Your task to perform on an android device: Go to display settings Image 0: 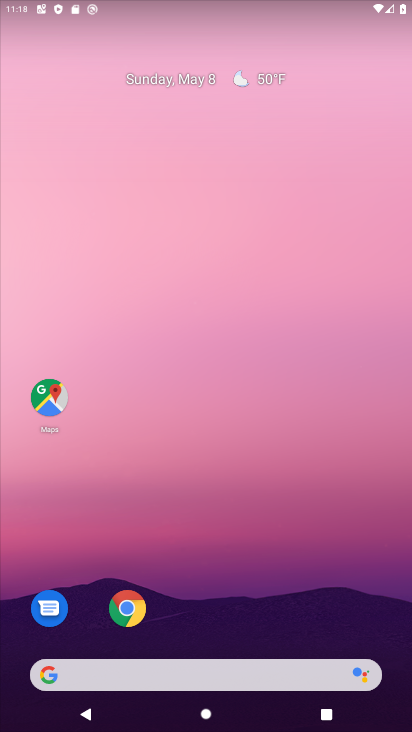
Step 0: drag from (278, 555) to (324, 0)
Your task to perform on an android device: Go to display settings Image 1: 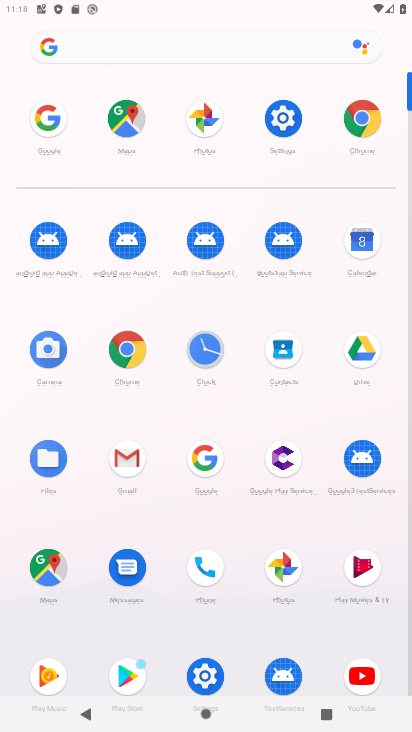
Step 1: click (289, 117)
Your task to perform on an android device: Go to display settings Image 2: 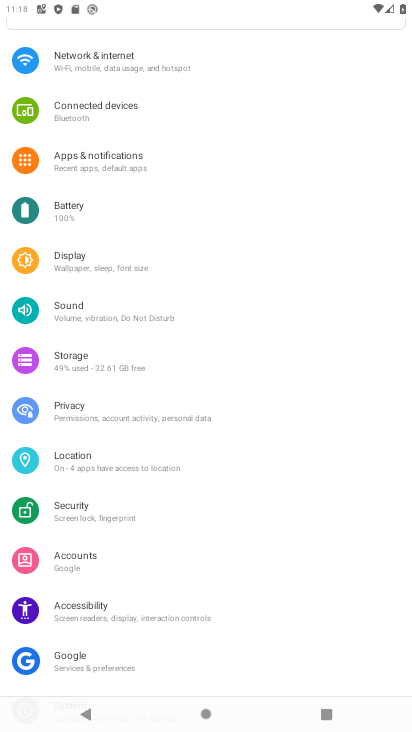
Step 2: click (101, 254)
Your task to perform on an android device: Go to display settings Image 3: 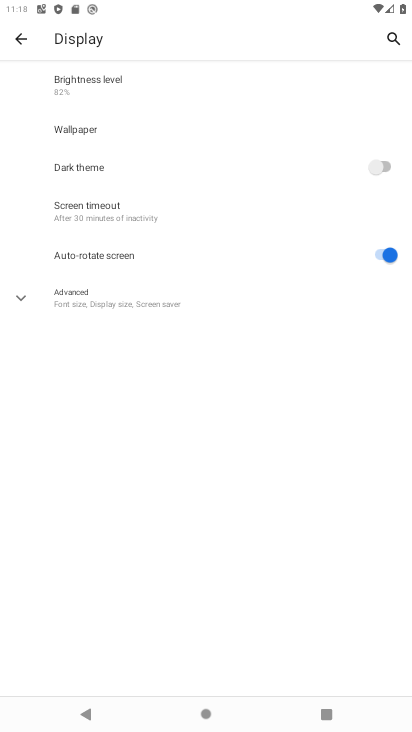
Step 3: task complete